Your task to perform on an android device: open app "Spotify: Music and Podcasts" (install if not already installed) and enter user name: "principled@inbox.com" and password: "arrests" Image 0: 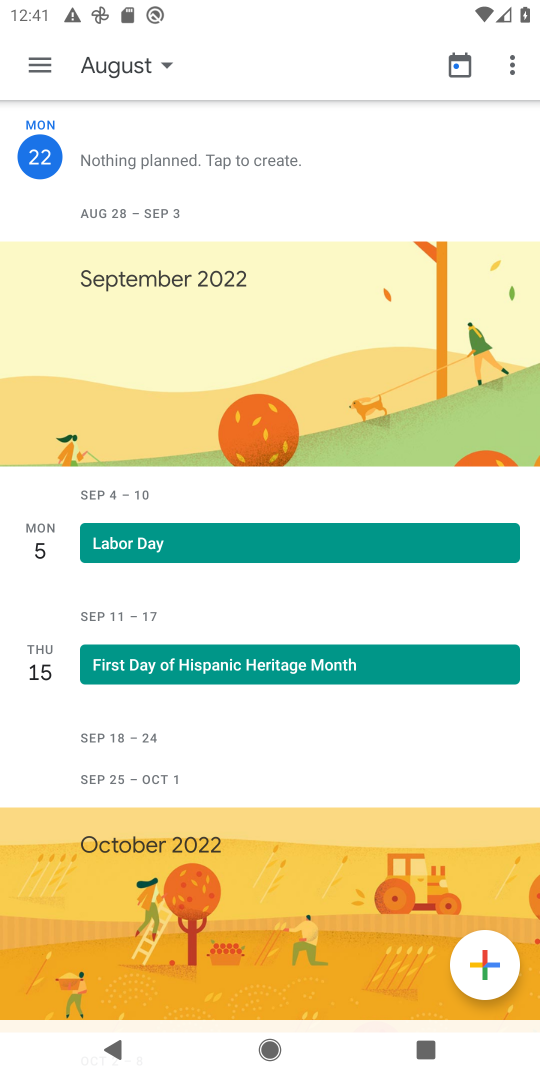
Step 0: press home button
Your task to perform on an android device: open app "Spotify: Music and Podcasts" (install if not already installed) and enter user name: "principled@inbox.com" and password: "arrests" Image 1: 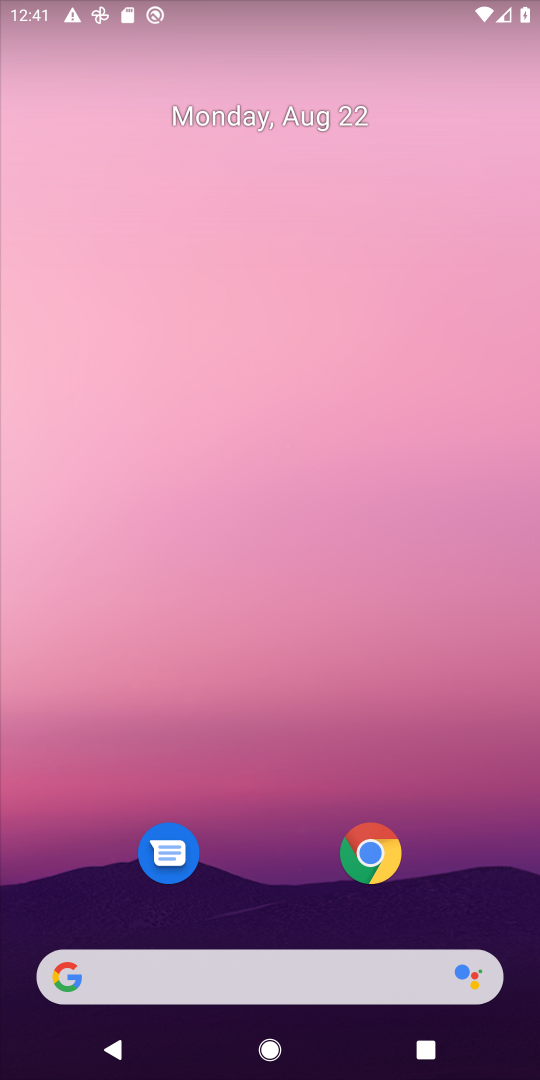
Step 1: drag from (261, 899) to (228, 88)
Your task to perform on an android device: open app "Spotify: Music and Podcasts" (install if not already installed) and enter user name: "principled@inbox.com" and password: "arrests" Image 2: 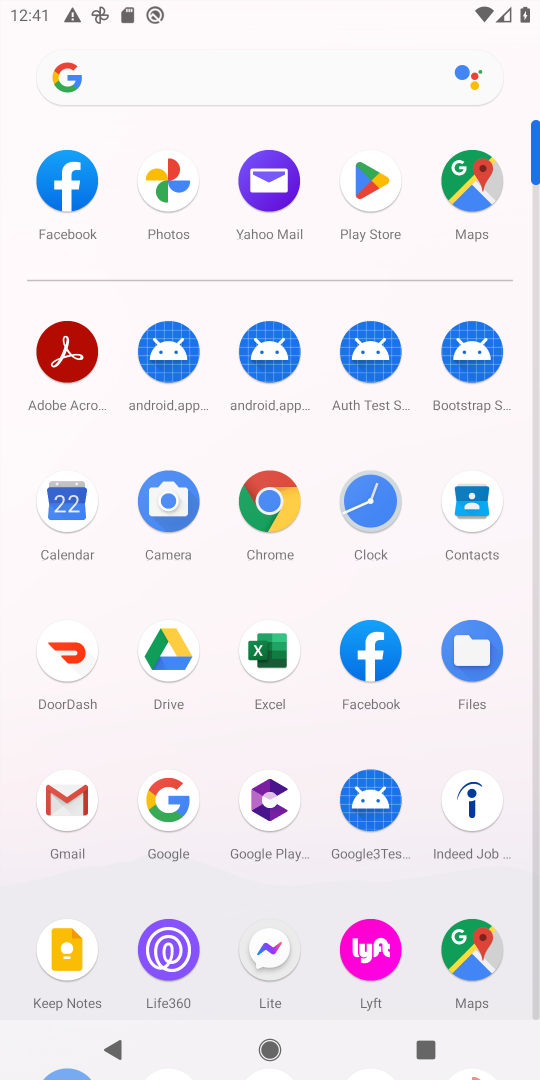
Step 2: click (377, 187)
Your task to perform on an android device: open app "Spotify: Music and Podcasts" (install if not already installed) and enter user name: "principled@inbox.com" and password: "arrests" Image 3: 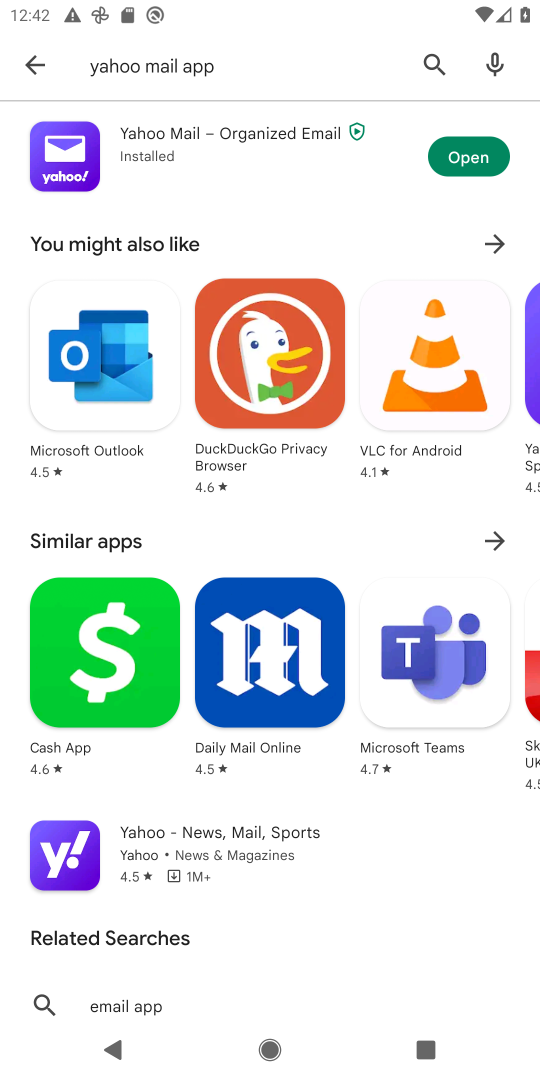
Step 3: click (50, 66)
Your task to perform on an android device: open app "Spotify: Music and Podcasts" (install if not already installed) and enter user name: "principled@inbox.com" and password: "arrests" Image 4: 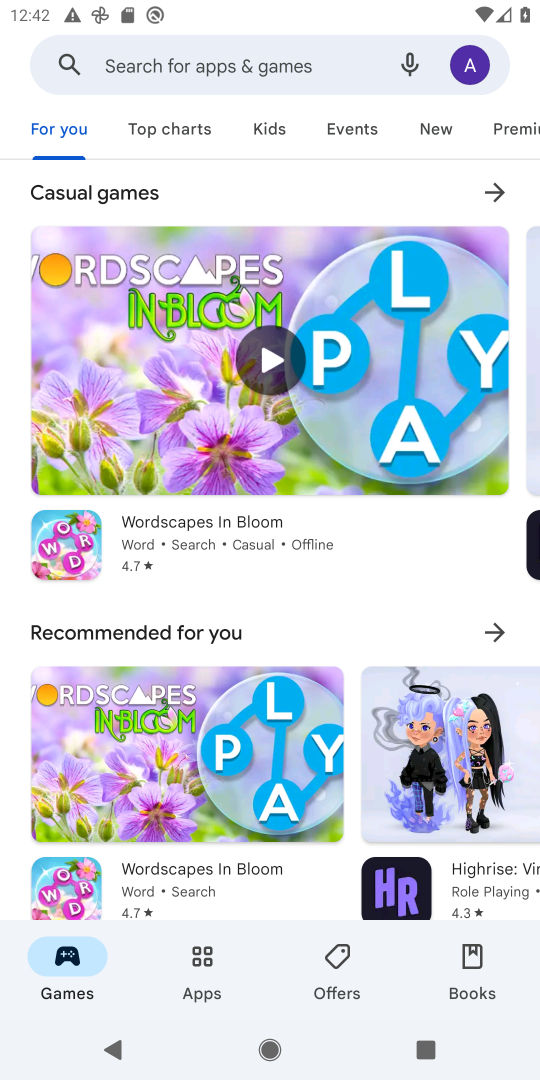
Step 4: click (206, 58)
Your task to perform on an android device: open app "Spotify: Music and Podcasts" (install if not already installed) and enter user name: "principled@inbox.com" and password: "arrests" Image 5: 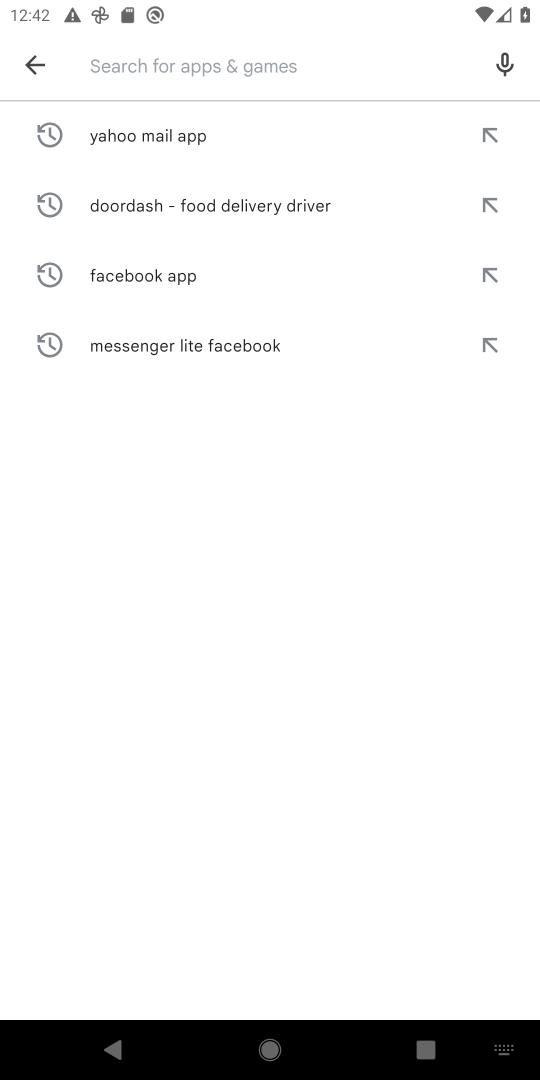
Step 5: type "spotify "
Your task to perform on an android device: open app "Spotify: Music and Podcasts" (install if not already installed) and enter user name: "principled@inbox.com" and password: "arrests" Image 6: 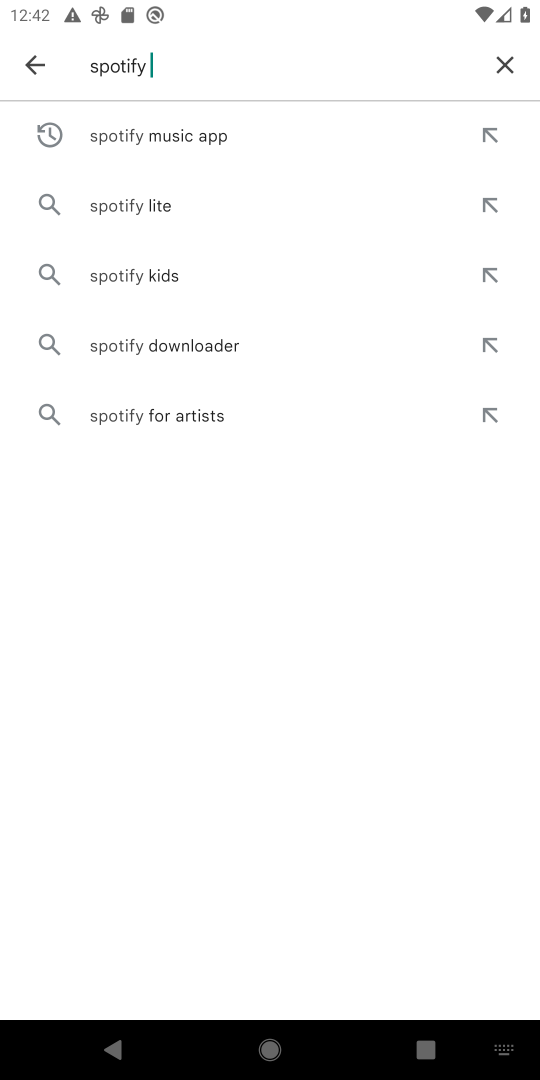
Step 6: click (175, 136)
Your task to perform on an android device: open app "Spotify: Music and Podcasts" (install if not already installed) and enter user name: "principled@inbox.com" and password: "arrests" Image 7: 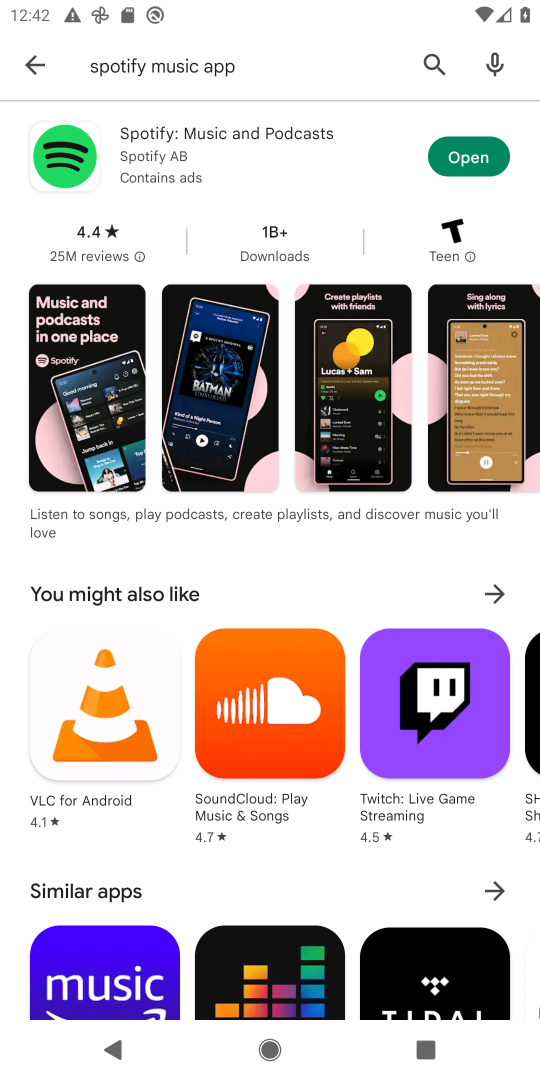
Step 7: click (466, 148)
Your task to perform on an android device: open app "Spotify: Music and Podcasts" (install if not already installed) and enter user name: "principled@inbox.com" and password: "arrests" Image 8: 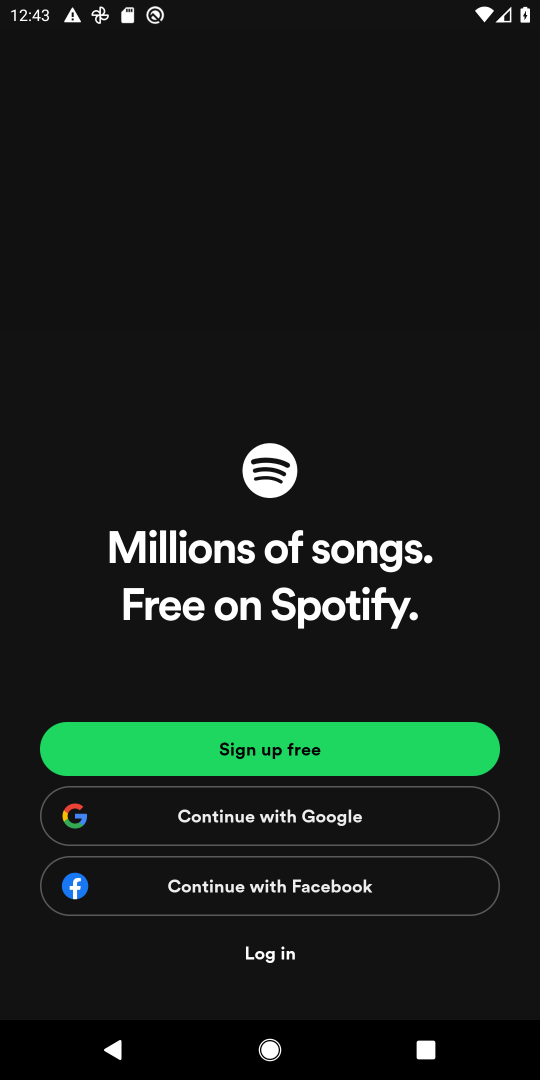
Step 8: task complete